Your task to perform on an android device: Go to Reddit.com Image 0: 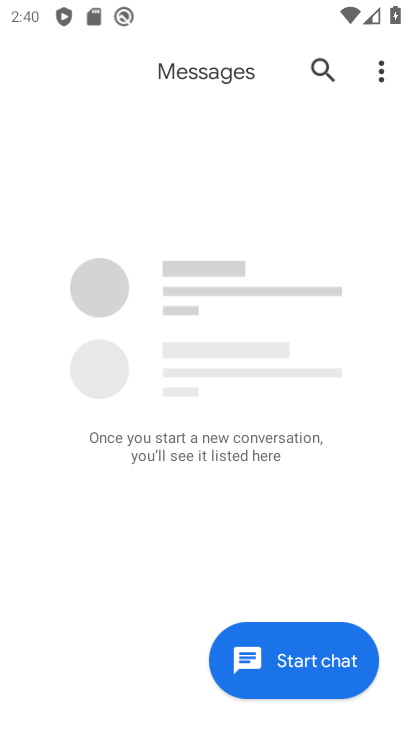
Step 0: press home button
Your task to perform on an android device: Go to Reddit.com Image 1: 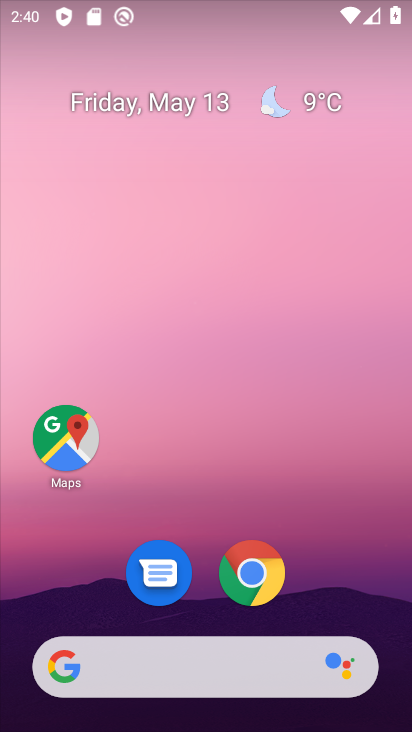
Step 1: click (256, 574)
Your task to perform on an android device: Go to Reddit.com Image 2: 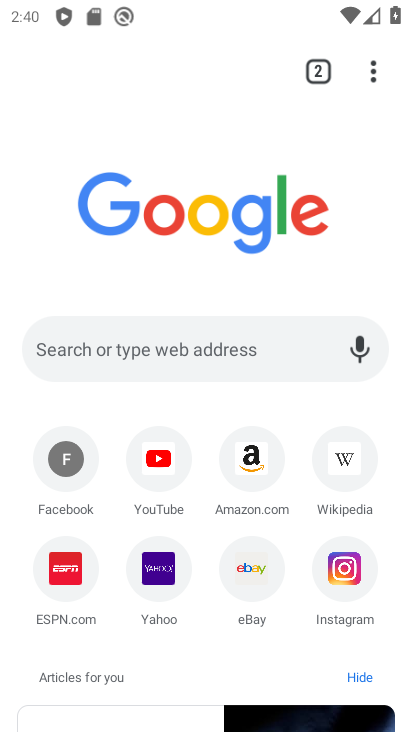
Step 2: click (237, 339)
Your task to perform on an android device: Go to Reddit.com Image 3: 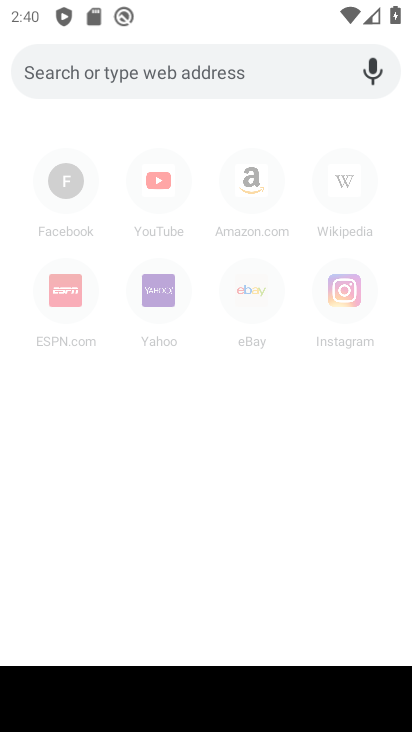
Step 3: type "Reddit.com"
Your task to perform on an android device: Go to Reddit.com Image 4: 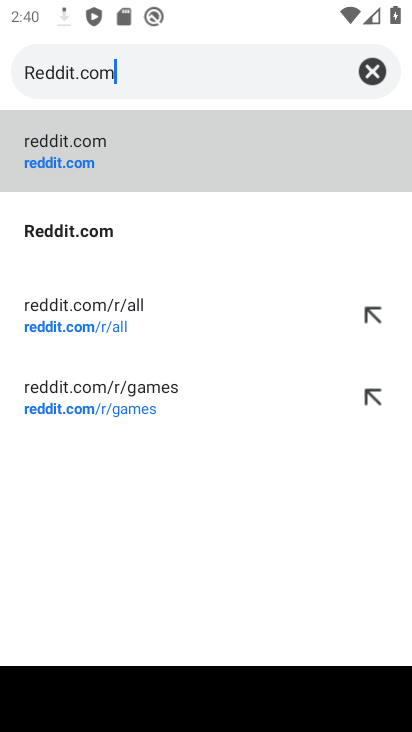
Step 4: click (118, 232)
Your task to perform on an android device: Go to Reddit.com Image 5: 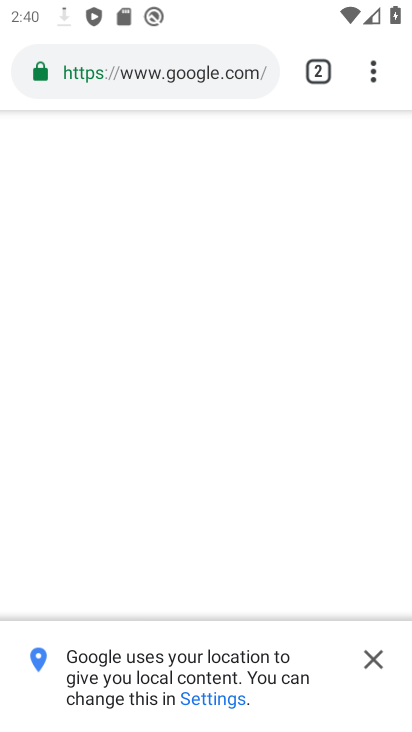
Step 5: click (376, 665)
Your task to perform on an android device: Go to Reddit.com Image 6: 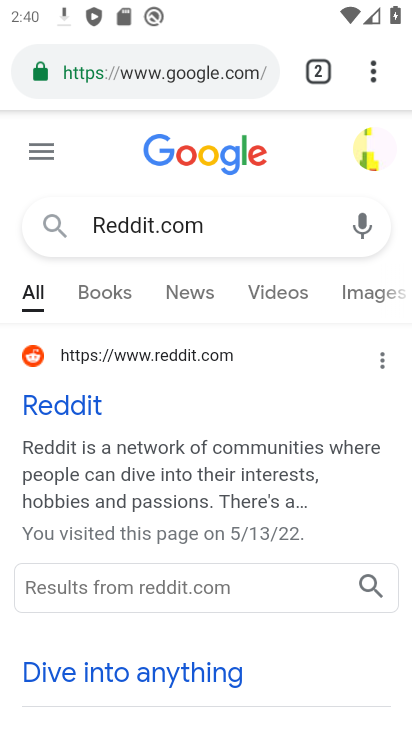
Step 6: click (71, 413)
Your task to perform on an android device: Go to Reddit.com Image 7: 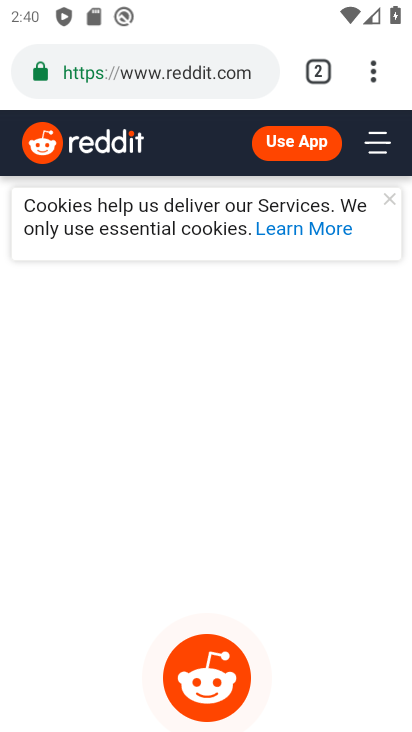
Step 7: task complete